Your task to perform on an android device: Go to privacy settings Image 0: 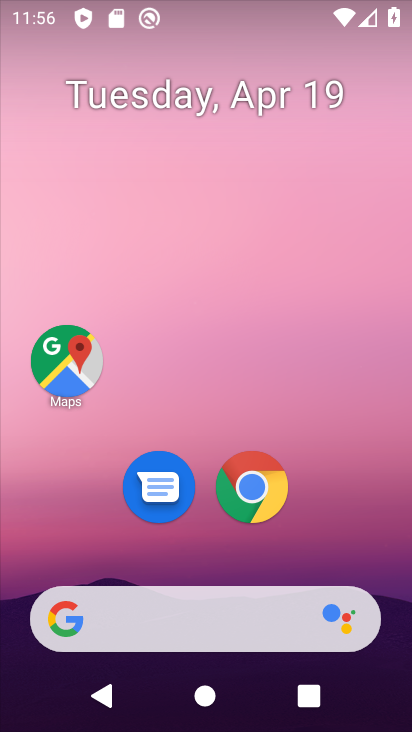
Step 0: drag from (361, 552) to (275, 133)
Your task to perform on an android device: Go to privacy settings Image 1: 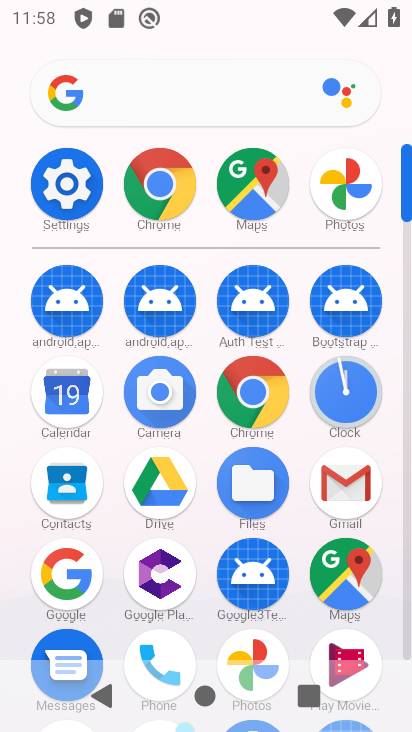
Step 1: click (61, 192)
Your task to perform on an android device: Go to privacy settings Image 2: 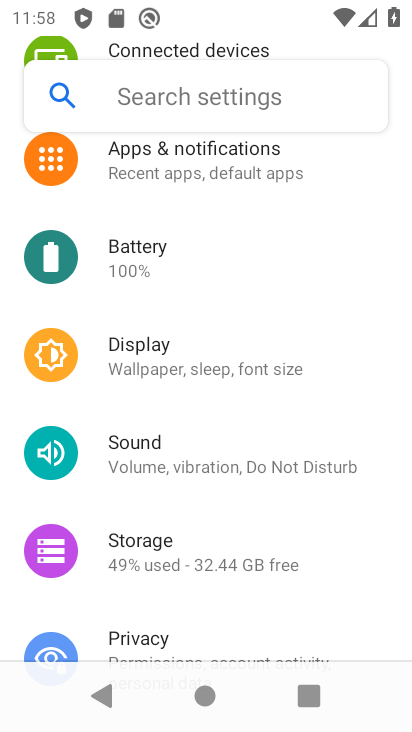
Step 2: click (169, 643)
Your task to perform on an android device: Go to privacy settings Image 3: 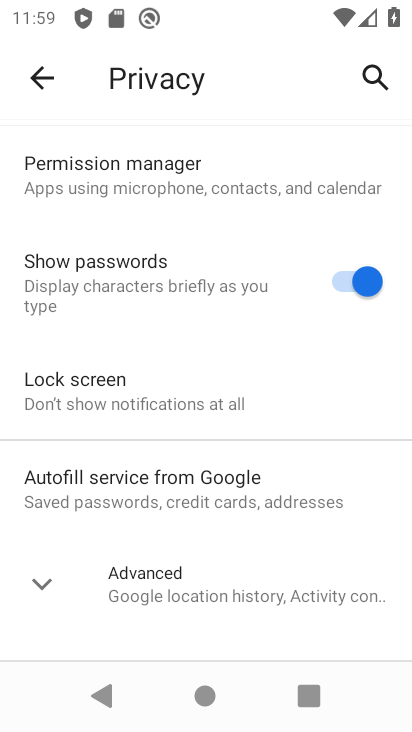
Step 3: task complete